Your task to perform on an android device: open app "Instagram" Image 0: 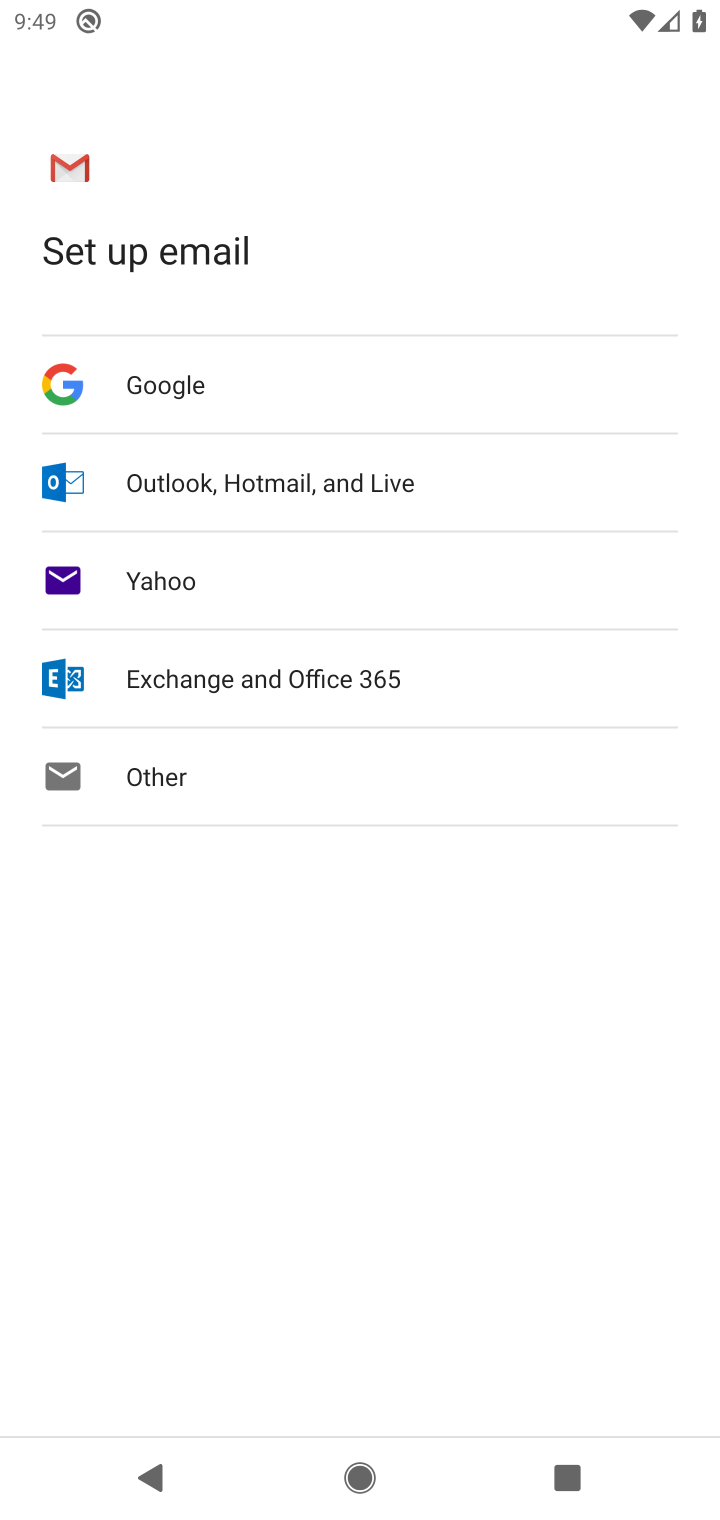
Step 0: press home button
Your task to perform on an android device: open app "Instagram" Image 1: 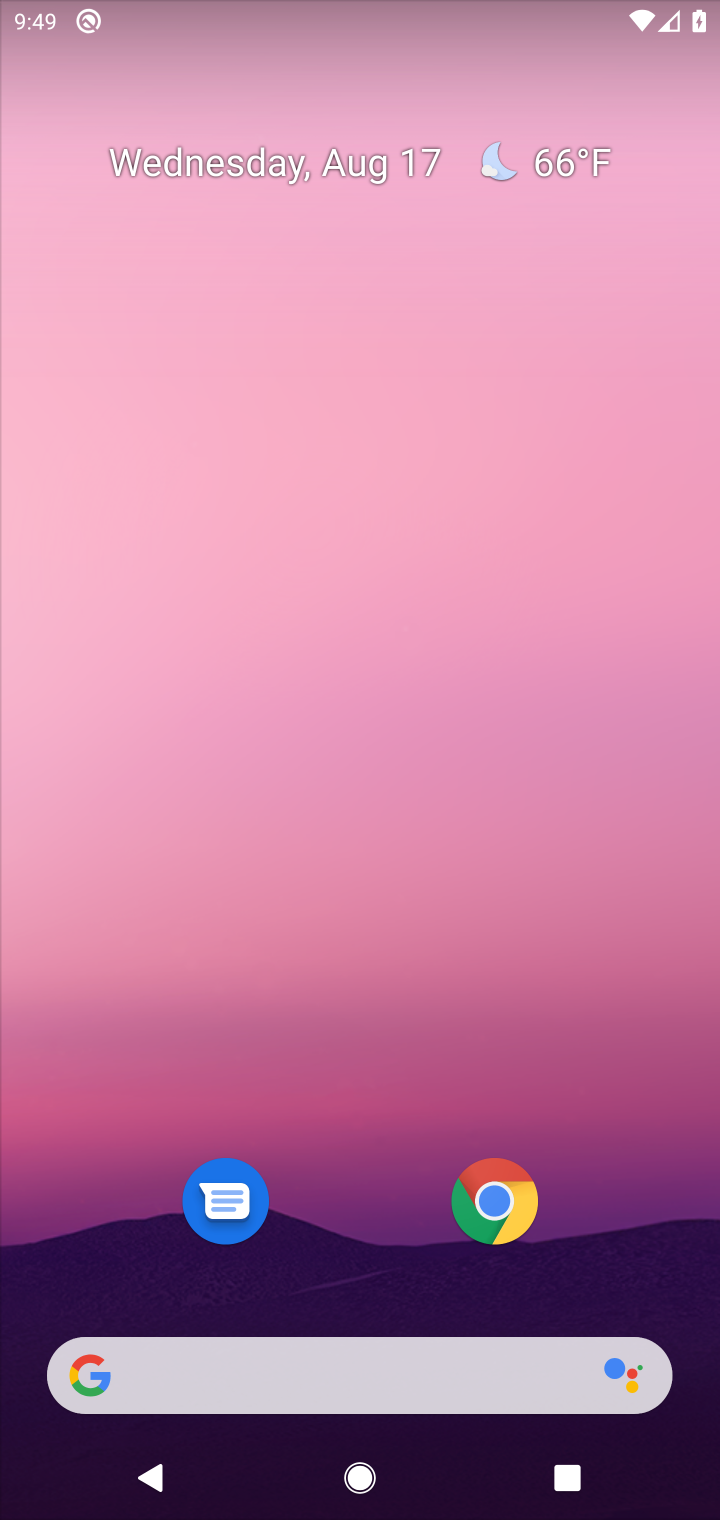
Step 1: drag from (382, 1276) to (401, 38)
Your task to perform on an android device: open app "Instagram" Image 2: 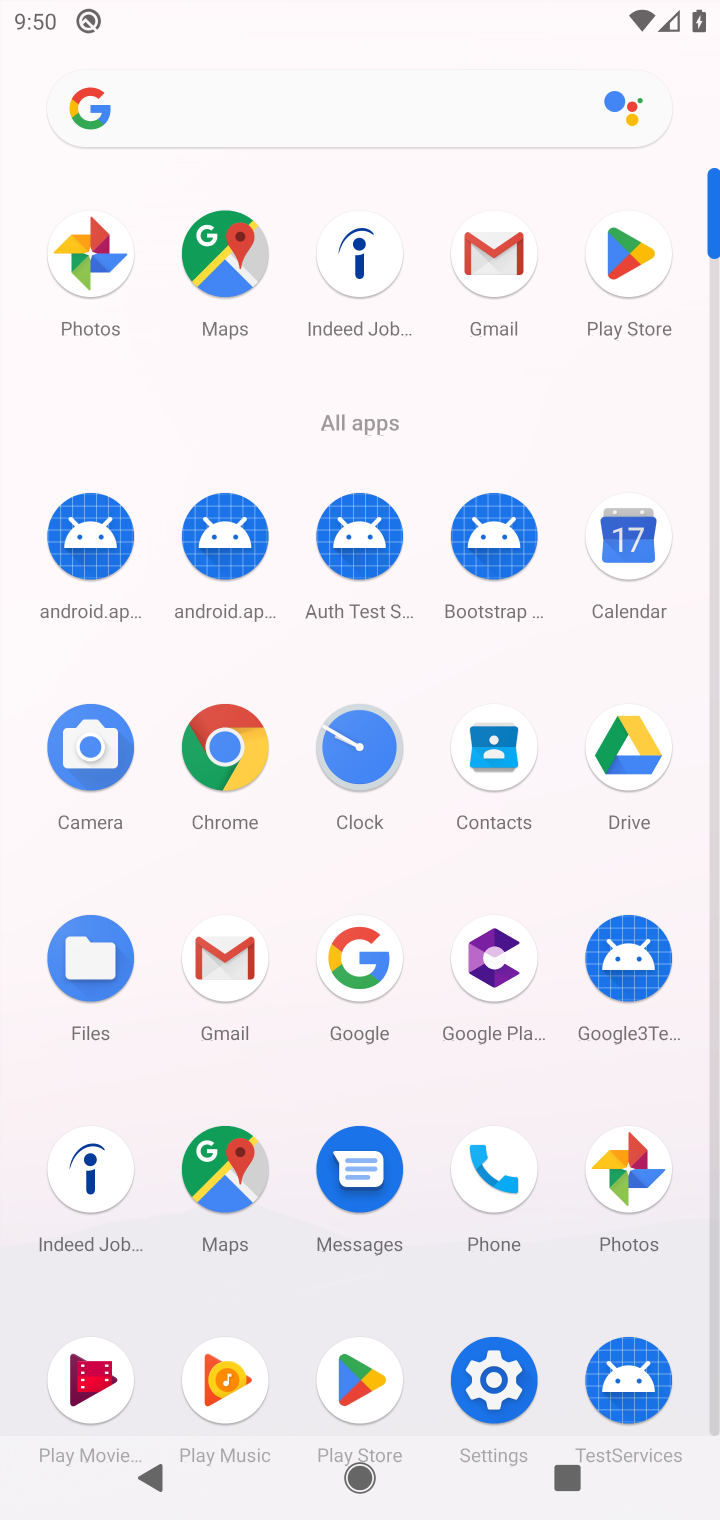
Step 2: click (343, 1371)
Your task to perform on an android device: open app "Instagram" Image 3: 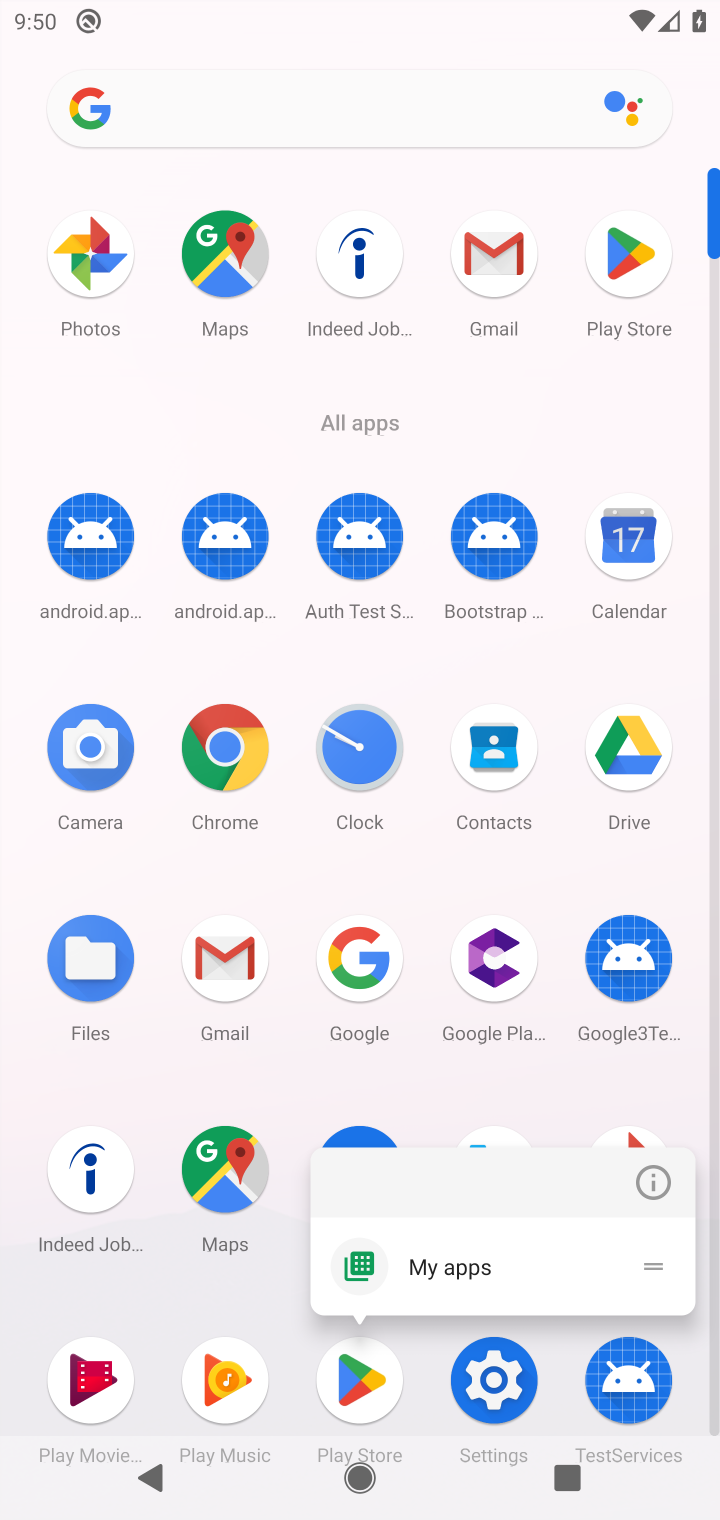
Step 3: click (348, 1364)
Your task to perform on an android device: open app "Instagram" Image 4: 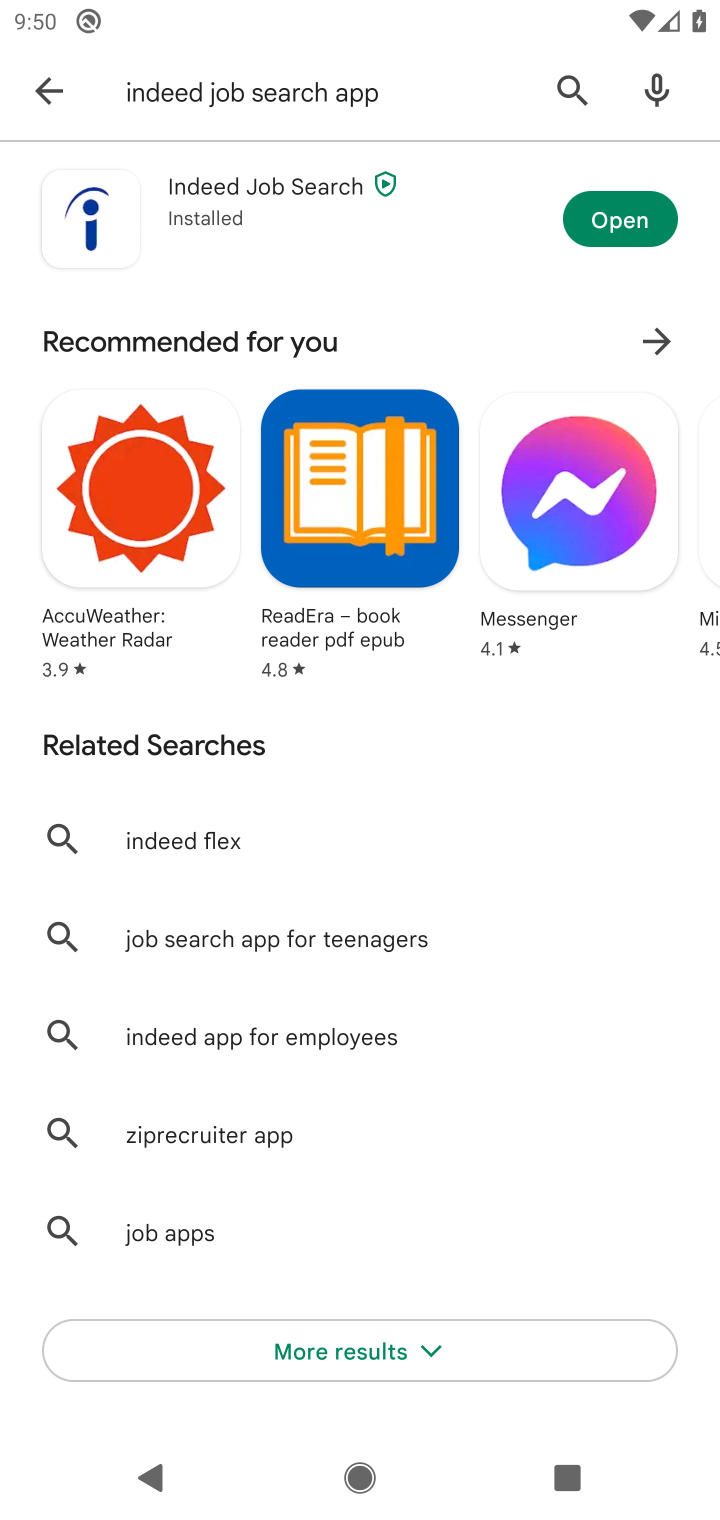
Step 4: click (554, 99)
Your task to perform on an android device: open app "Instagram" Image 5: 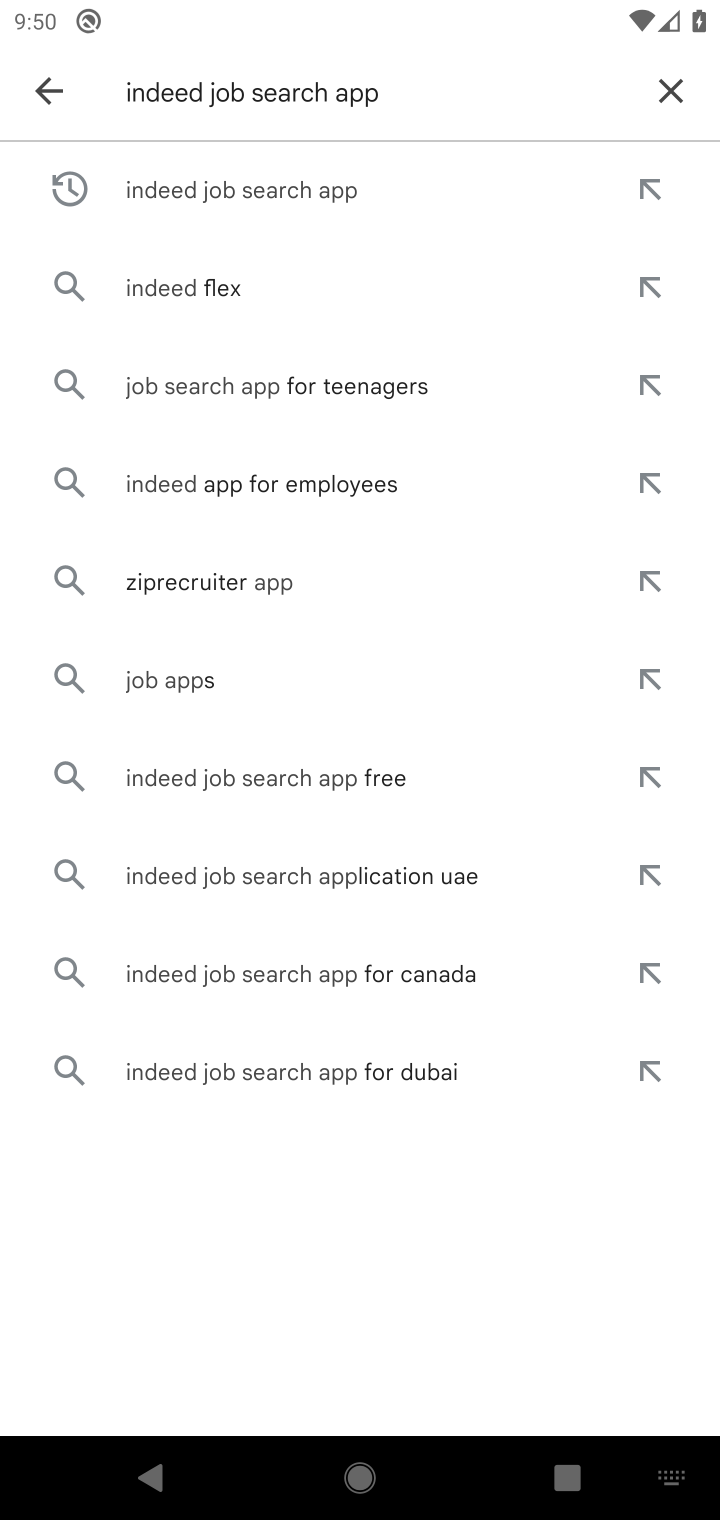
Step 5: click (668, 101)
Your task to perform on an android device: open app "Instagram" Image 6: 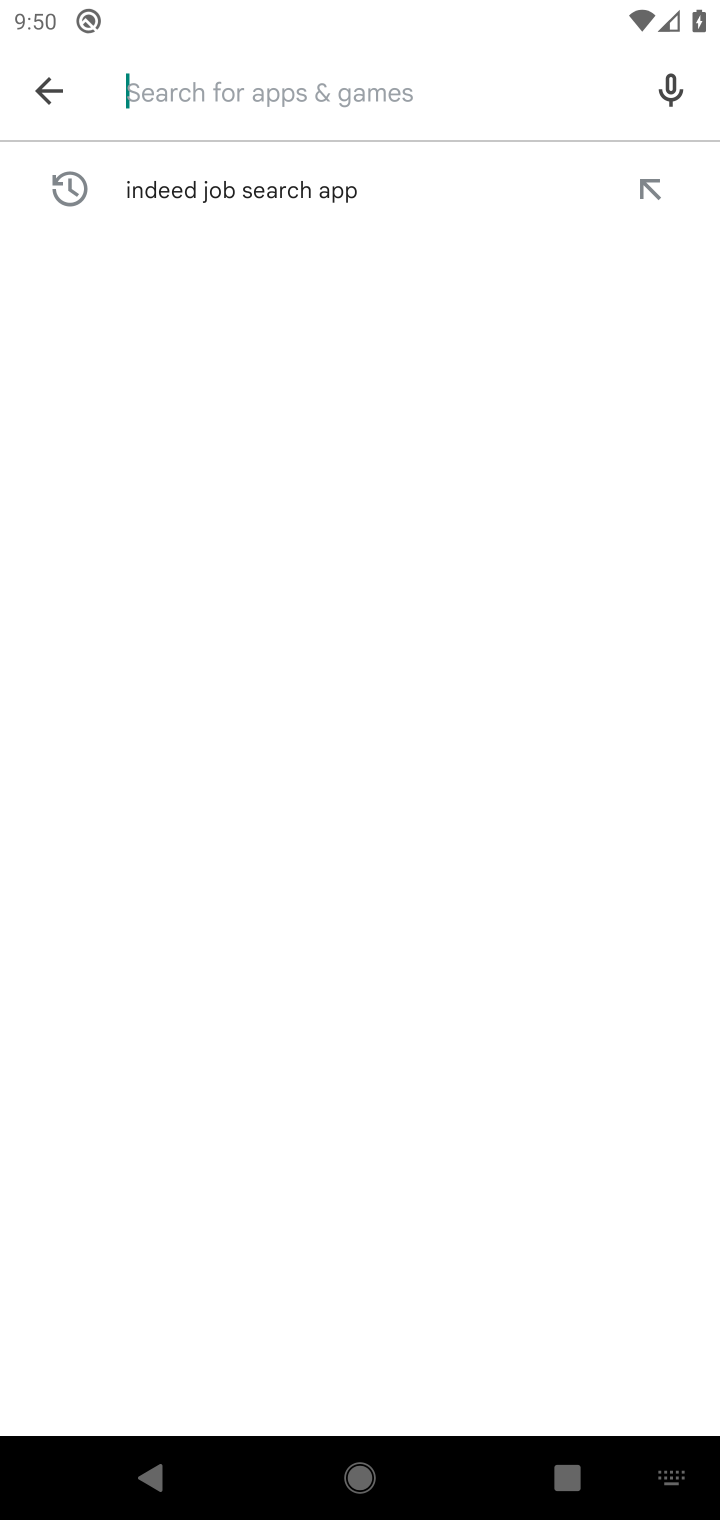
Step 6: type "Instagram"
Your task to perform on an android device: open app "Instagram" Image 7: 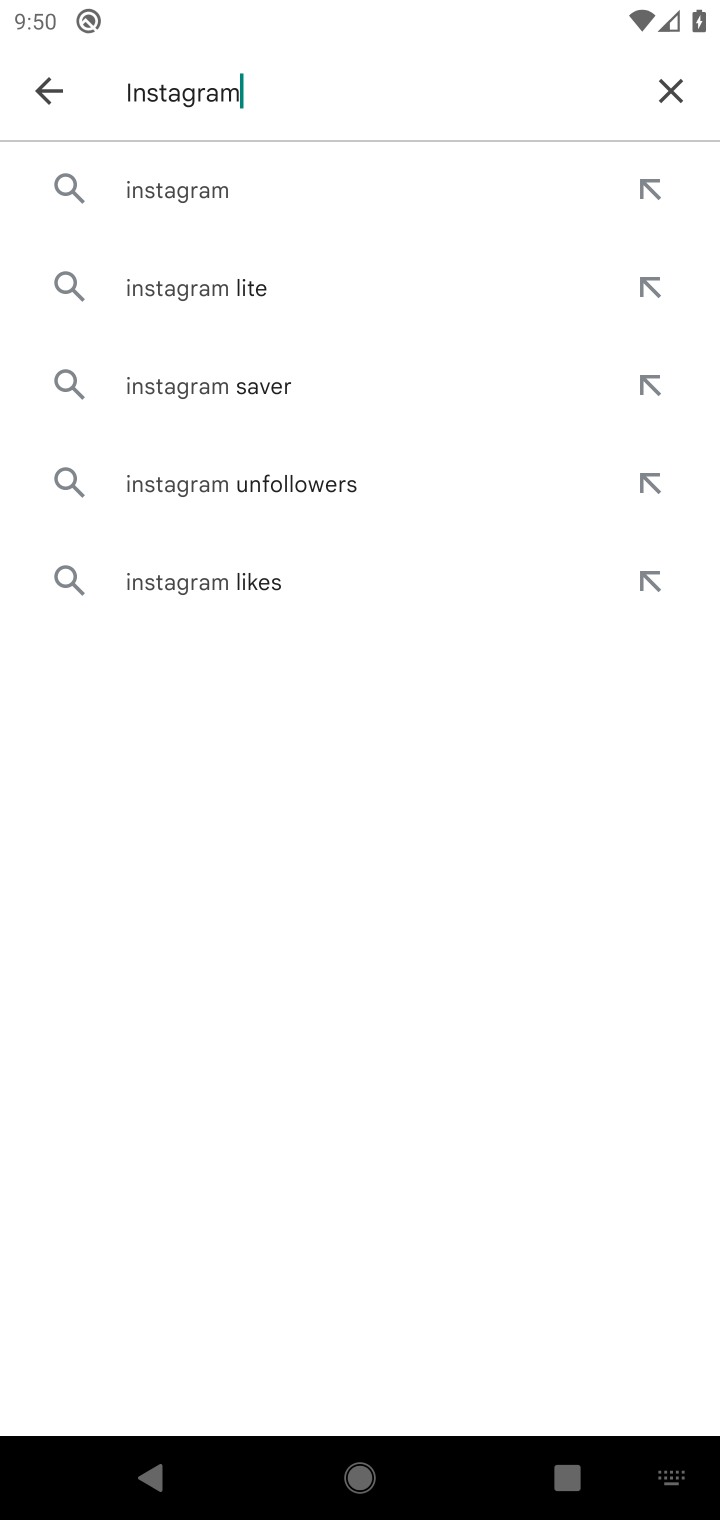
Step 7: click (125, 207)
Your task to perform on an android device: open app "Instagram" Image 8: 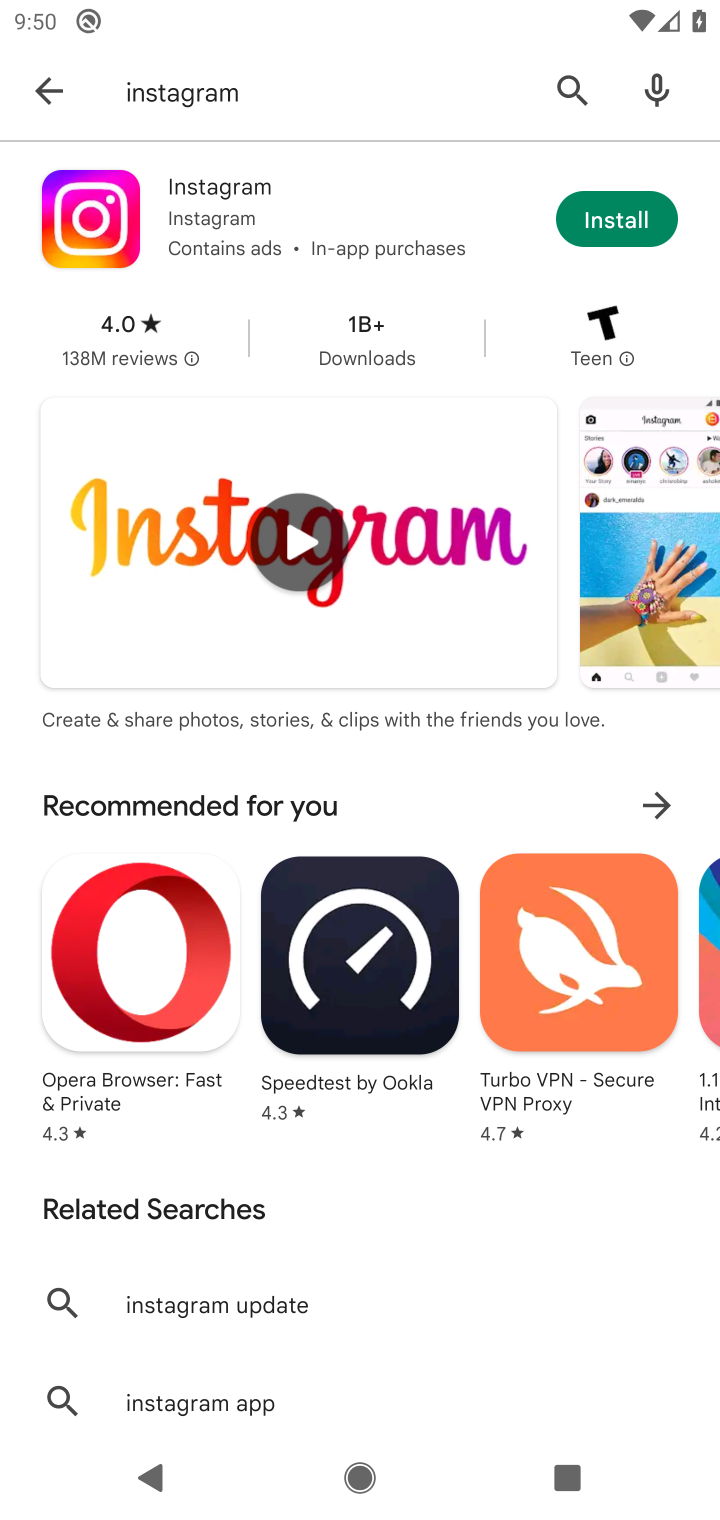
Step 8: task complete